Your task to perform on an android device: set default search engine in the chrome app Image 0: 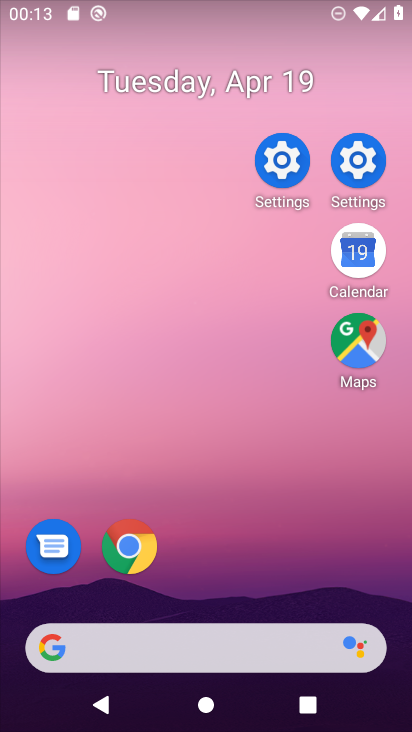
Step 0: drag from (390, 664) to (202, 147)
Your task to perform on an android device: set default search engine in the chrome app Image 1: 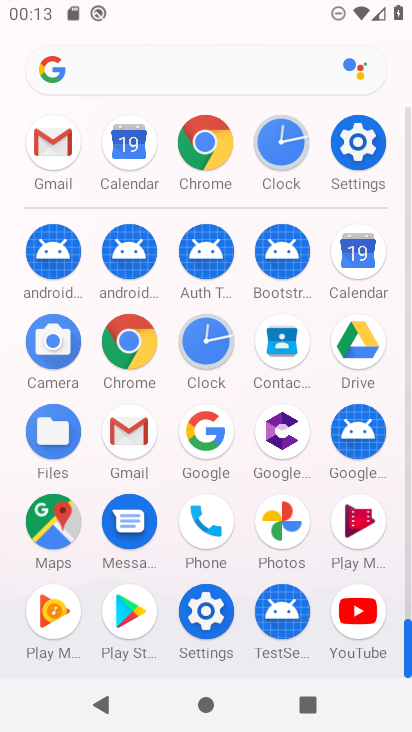
Step 1: click (210, 142)
Your task to perform on an android device: set default search engine in the chrome app Image 2: 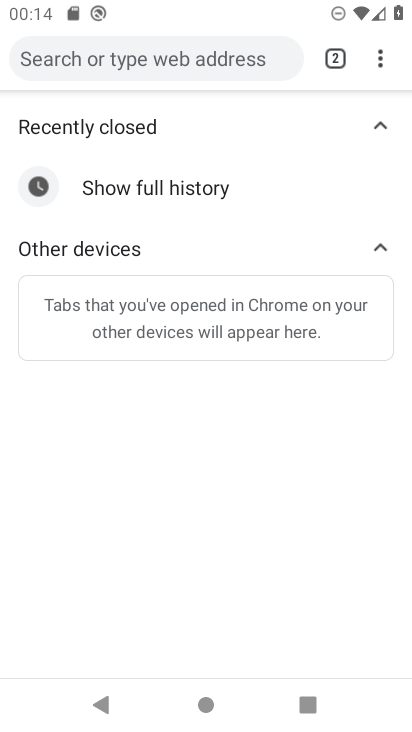
Step 2: click (135, 59)
Your task to perform on an android device: set default search engine in the chrome app Image 3: 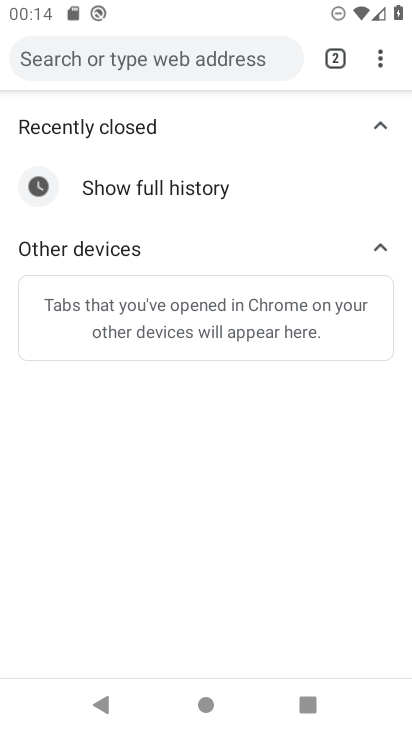
Step 3: click (135, 59)
Your task to perform on an android device: set default search engine in the chrome app Image 4: 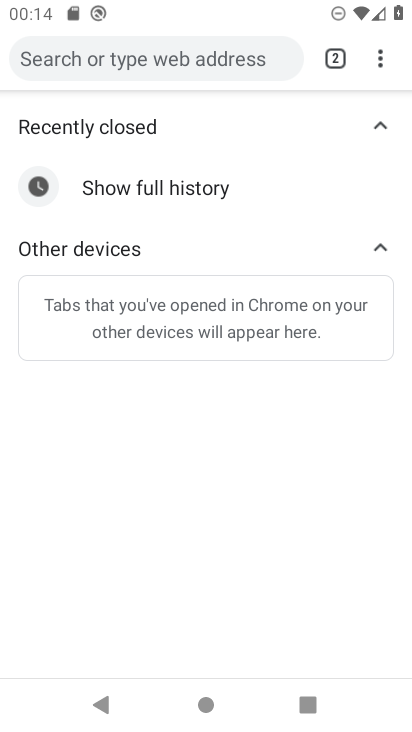
Step 4: click (373, 55)
Your task to perform on an android device: set default search engine in the chrome app Image 5: 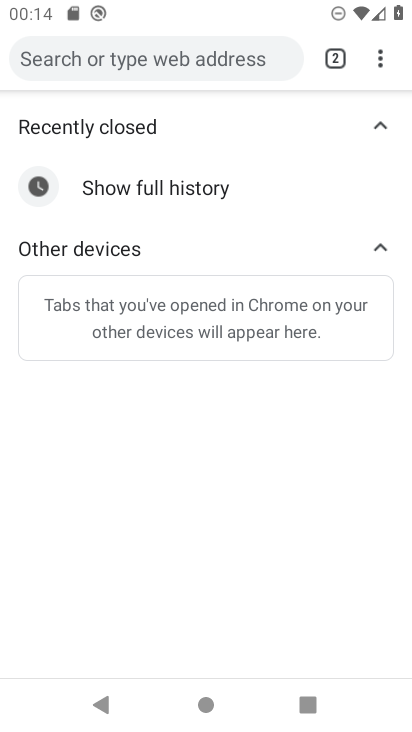
Step 5: click (375, 55)
Your task to perform on an android device: set default search engine in the chrome app Image 6: 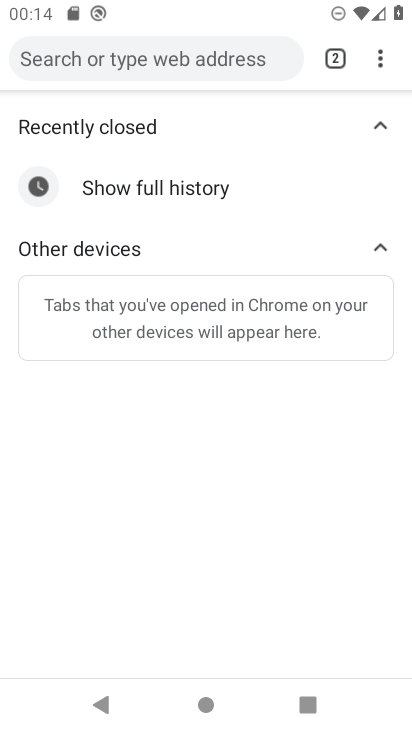
Step 6: click (375, 55)
Your task to perform on an android device: set default search engine in the chrome app Image 7: 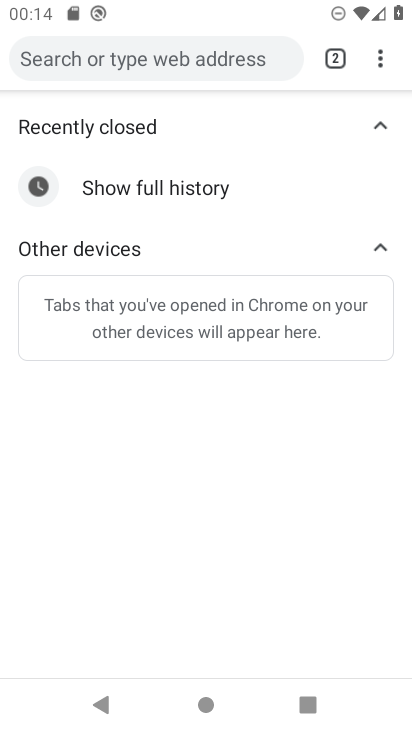
Step 7: click (374, 68)
Your task to perform on an android device: set default search engine in the chrome app Image 8: 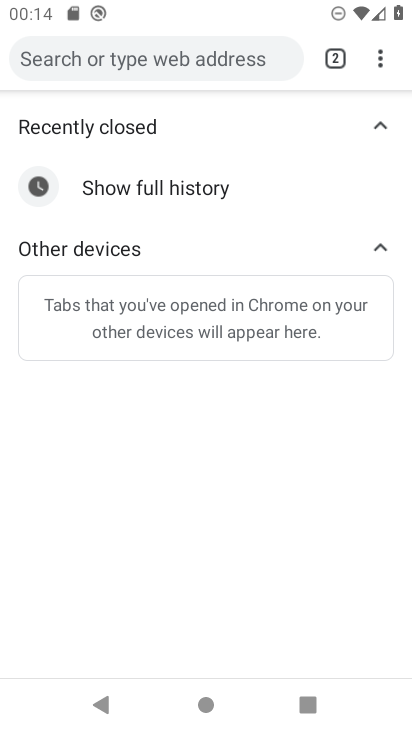
Step 8: click (374, 69)
Your task to perform on an android device: set default search engine in the chrome app Image 9: 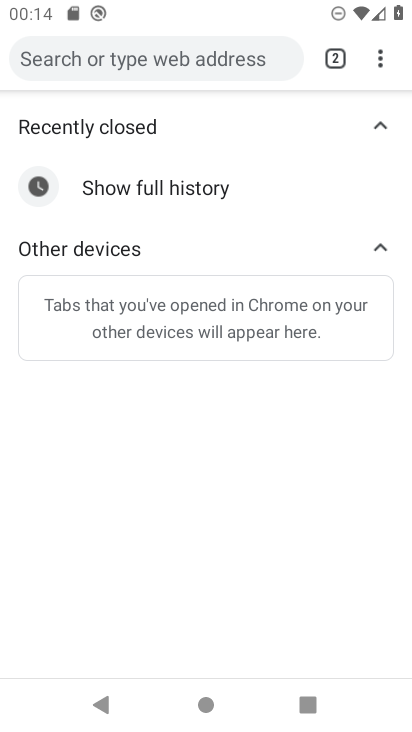
Step 9: click (382, 57)
Your task to perform on an android device: set default search engine in the chrome app Image 10: 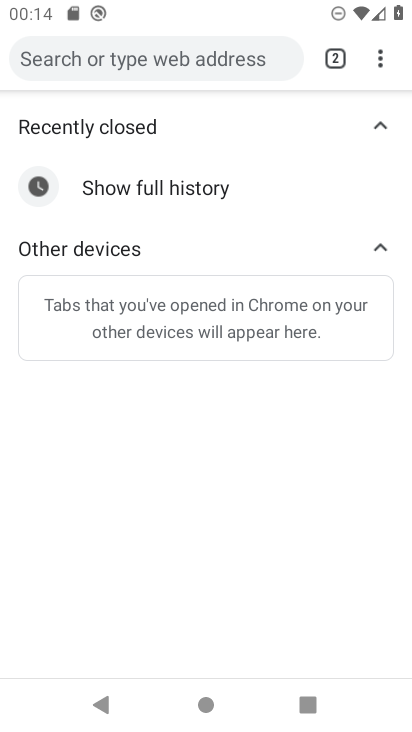
Step 10: click (377, 58)
Your task to perform on an android device: set default search engine in the chrome app Image 11: 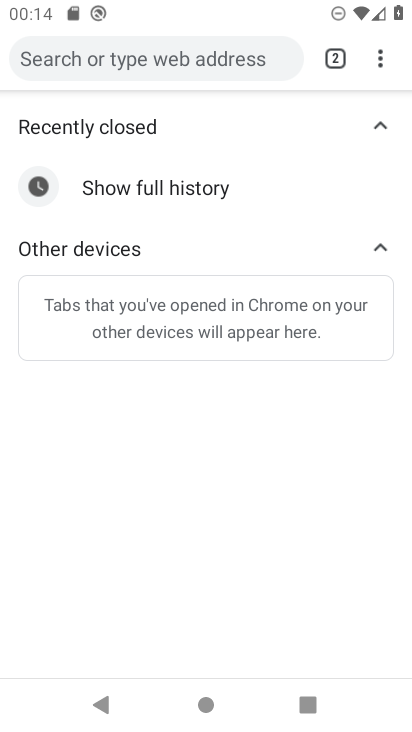
Step 11: click (377, 58)
Your task to perform on an android device: set default search engine in the chrome app Image 12: 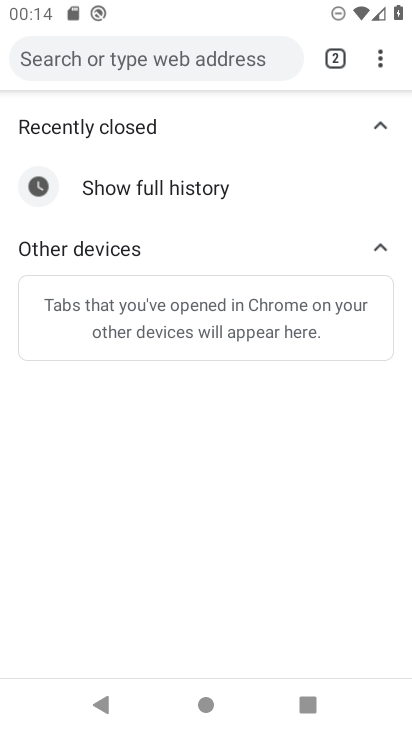
Step 12: click (380, 59)
Your task to perform on an android device: set default search engine in the chrome app Image 13: 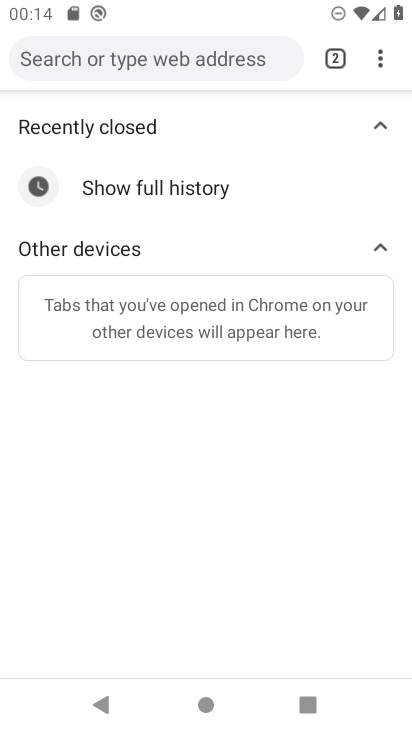
Step 13: click (374, 57)
Your task to perform on an android device: set default search engine in the chrome app Image 14: 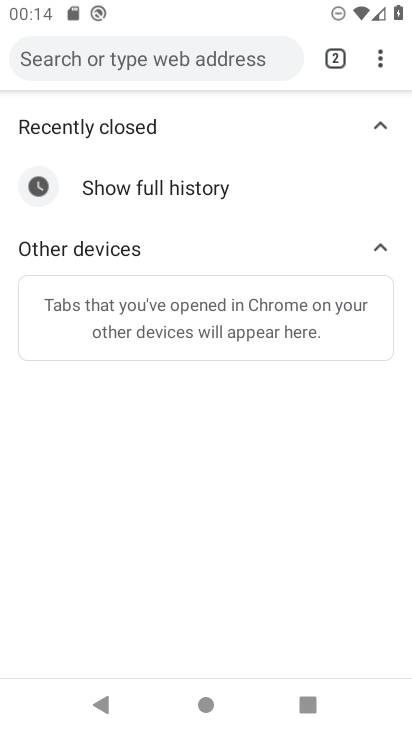
Step 14: click (375, 57)
Your task to perform on an android device: set default search engine in the chrome app Image 15: 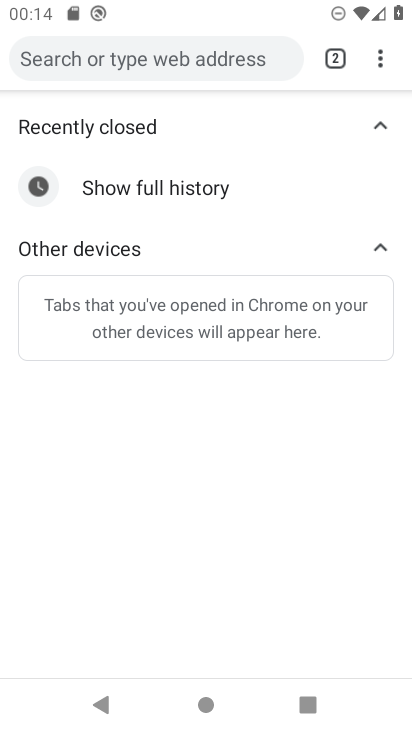
Step 15: click (375, 57)
Your task to perform on an android device: set default search engine in the chrome app Image 16: 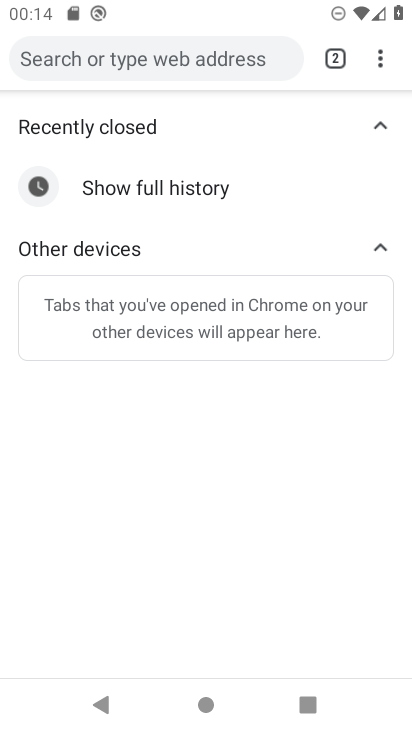
Step 16: click (383, 56)
Your task to perform on an android device: set default search engine in the chrome app Image 17: 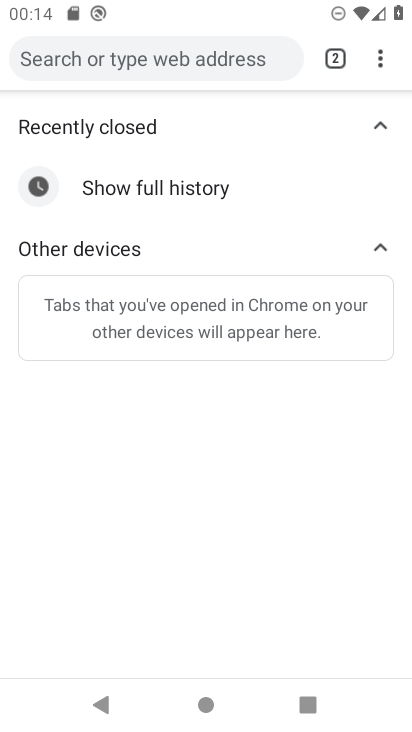
Step 17: click (383, 56)
Your task to perform on an android device: set default search engine in the chrome app Image 18: 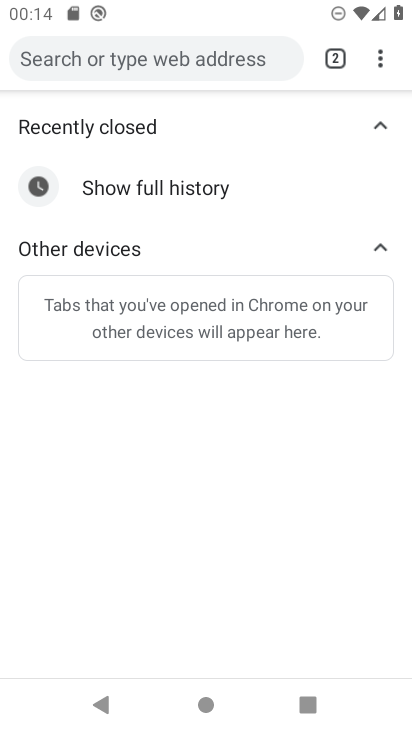
Step 18: click (381, 59)
Your task to perform on an android device: set default search engine in the chrome app Image 19: 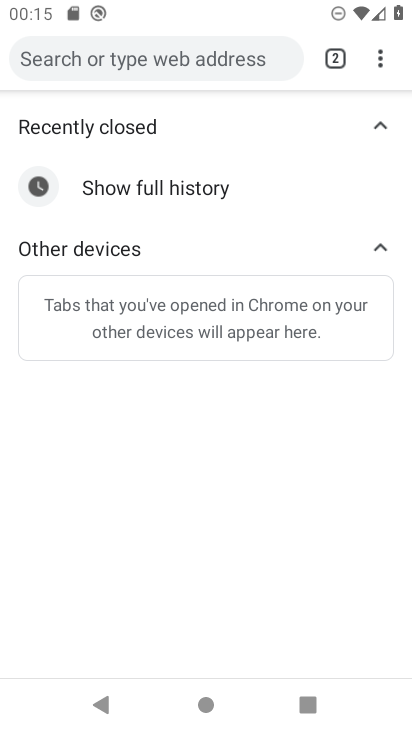
Step 19: click (376, 52)
Your task to perform on an android device: set default search engine in the chrome app Image 20: 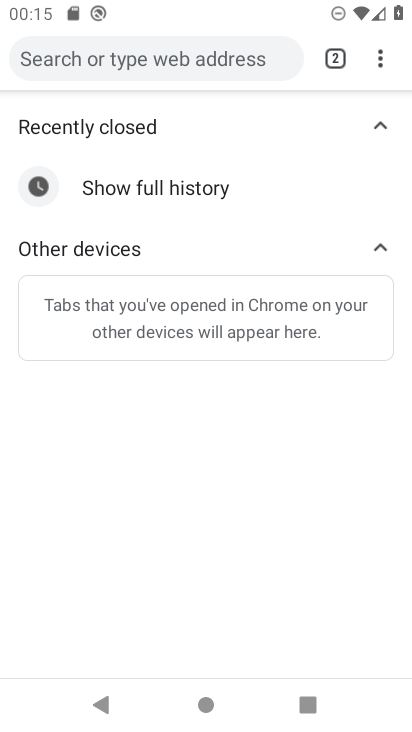
Step 20: click (376, 53)
Your task to perform on an android device: set default search engine in the chrome app Image 21: 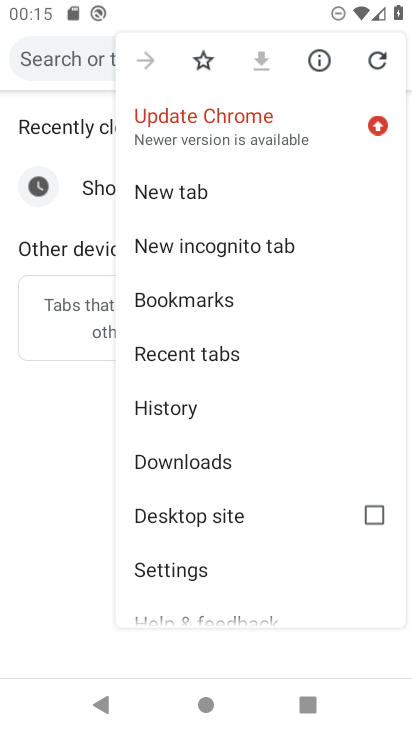
Step 21: drag from (243, 562) to (219, 157)
Your task to perform on an android device: set default search engine in the chrome app Image 22: 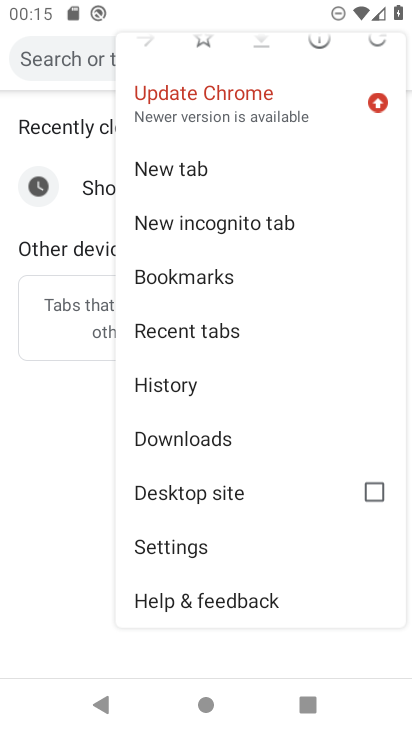
Step 22: click (166, 543)
Your task to perform on an android device: set default search engine in the chrome app Image 23: 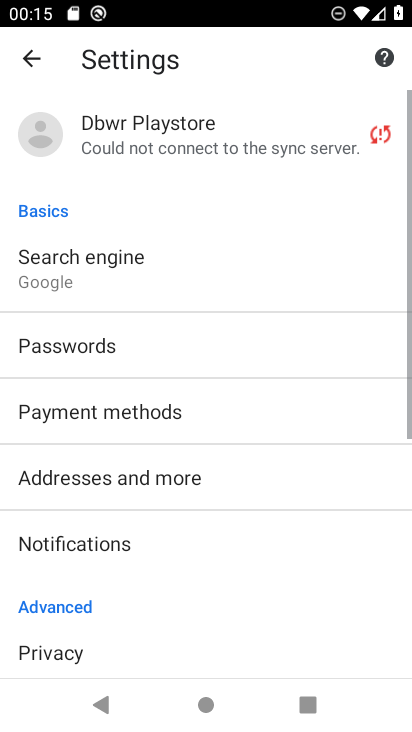
Step 23: drag from (162, 535) to (195, 48)
Your task to perform on an android device: set default search engine in the chrome app Image 24: 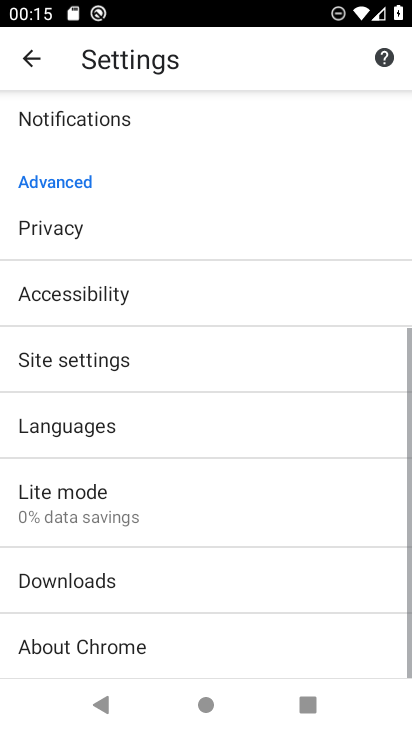
Step 24: drag from (103, 156) to (176, 633)
Your task to perform on an android device: set default search engine in the chrome app Image 25: 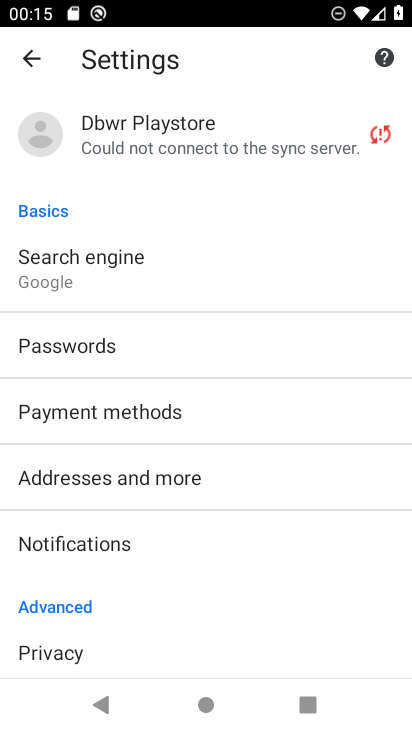
Step 25: click (44, 265)
Your task to perform on an android device: set default search engine in the chrome app Image 26: 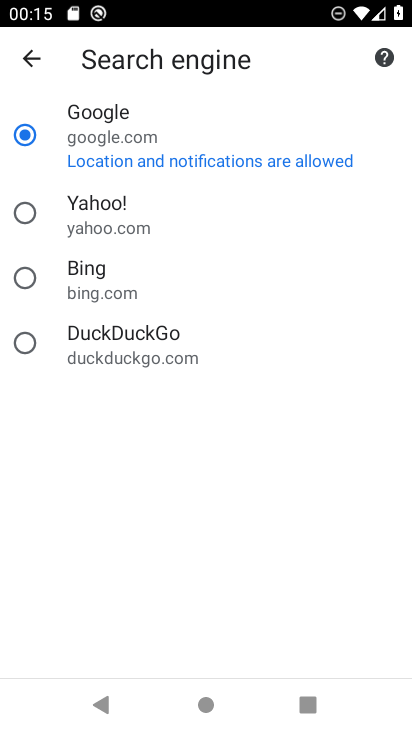
Step 26: click (19, 205)
Your task to perform on an android device: set default search engine in the chrome app Image 27: 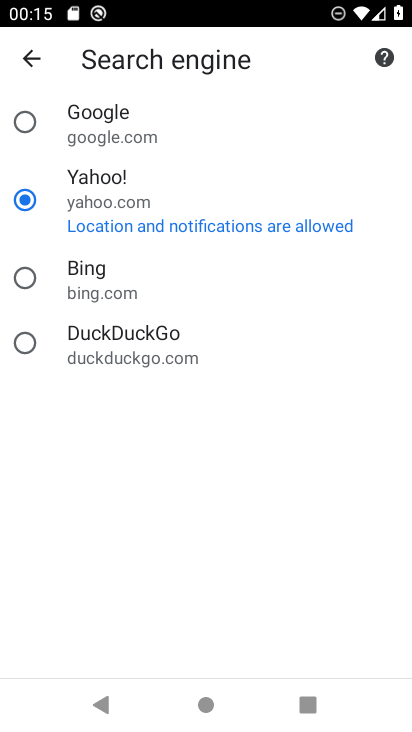
Step 27: click (18, 122)
Your task to perform on an android device: set default search engine in the chrome app Image 28: 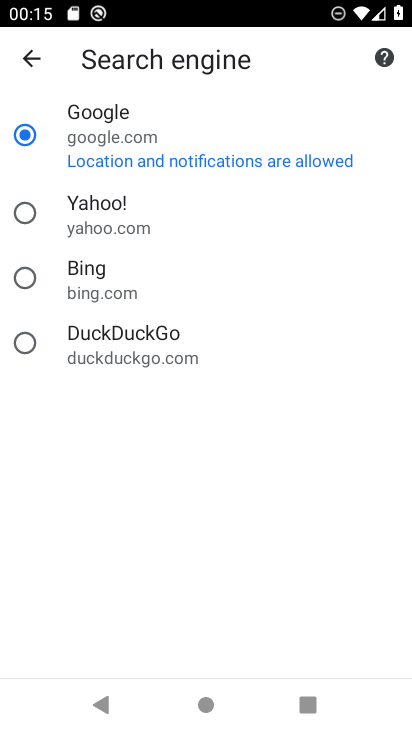
Step 28: task complete